Your task to perform on an android device: open wifi settings Image 0: 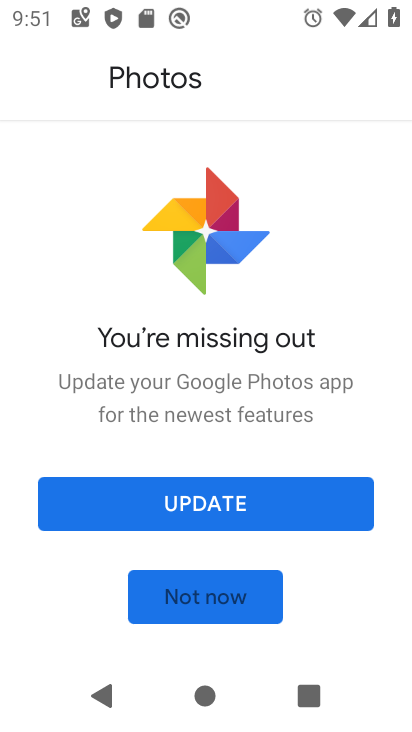
Step 0: press home button
Your task to perform on an android device: open wifi settings Image 1: 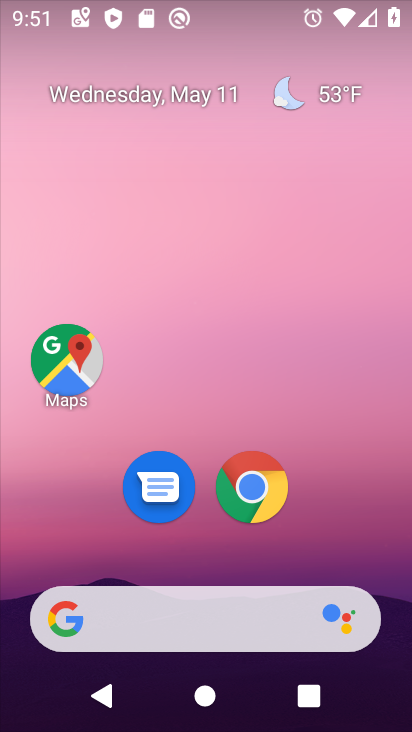
Step 1: drag from (193, 553) to (225, 186)
Your task to perform on an android device: open wifi settings Image 2: 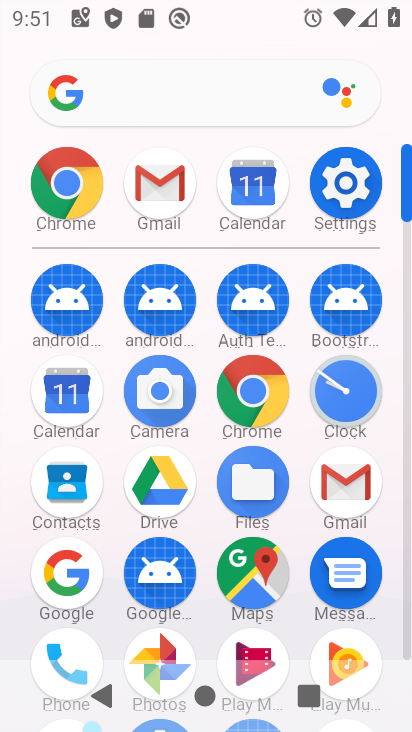
Step 2: click (345, 189)
Your task to perform on an android device: open wifi settings Image 3: 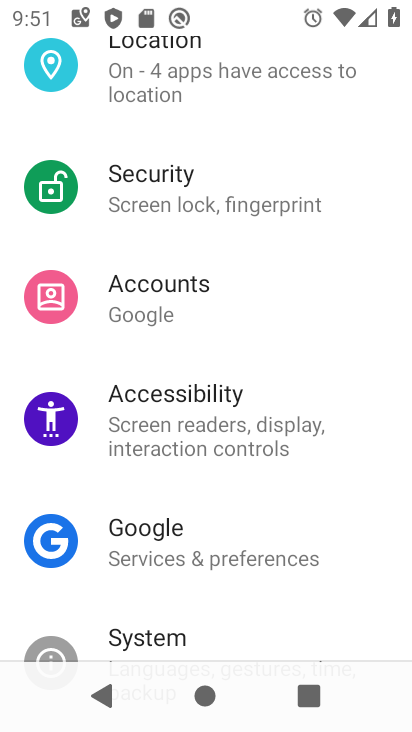
Step 3: drag from (241, 161) to (269, 566)
Your task to perform on an android device: open wifi settings Image 4: 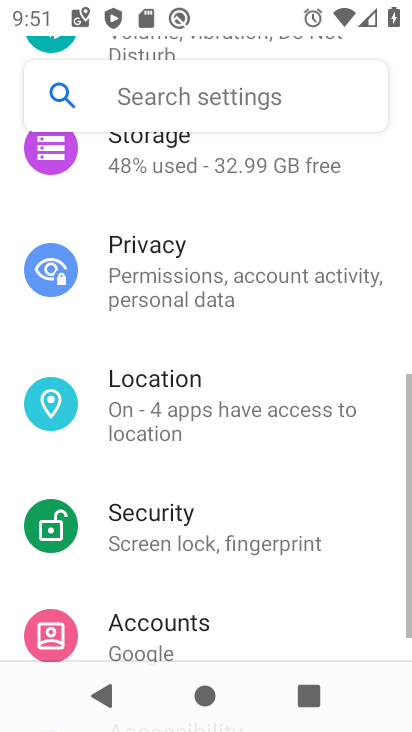
Step 4: drag from (174, 183) to (200, 465)
Your task to perform on an android device: open wifi settings Image 5: 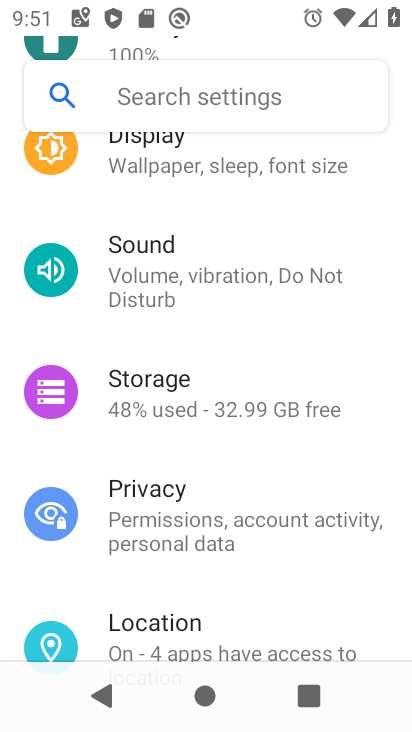
Step 5: drag from (168, 231) to (194, 494)
Your task to perform on an android device: open wifi settings Image 6: 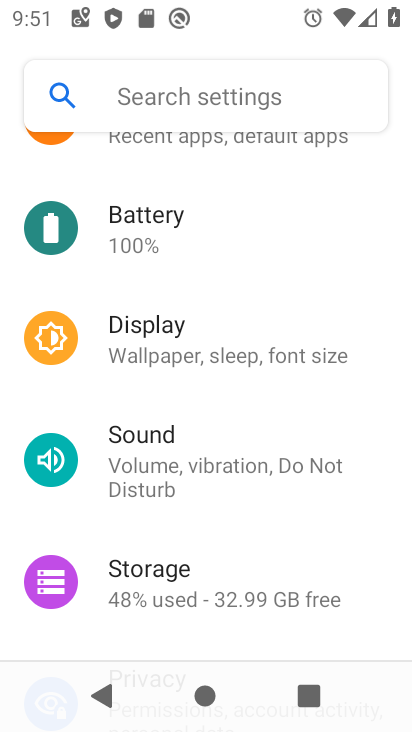
Step 6: drag from (176, 213) to (225, 484)
Your task to perform on an android device: open wifi settings Image 7: 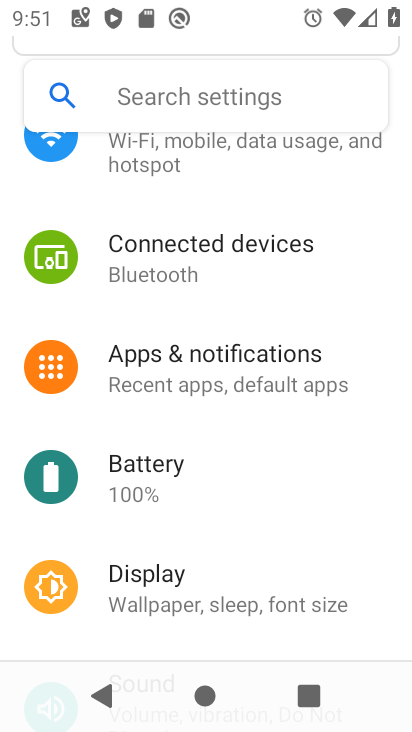
Step 7: drag from (180, 200) to (216, 446)
Your task to perform on an android device: open wifi settings Image 8: 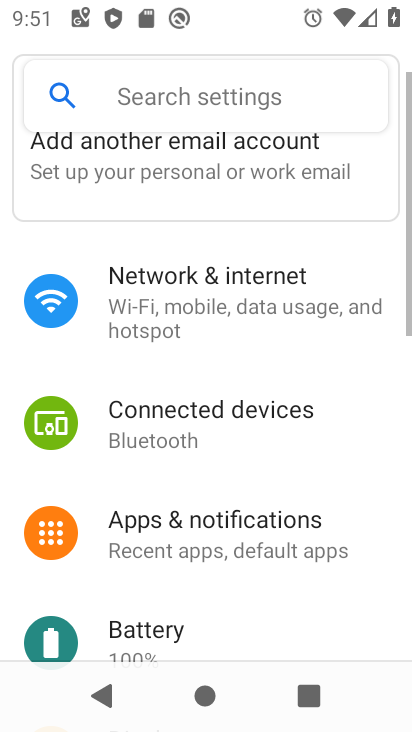
Step 8: click (163, 321)
Your task to perform on an android device: open wifi settings Image 9: 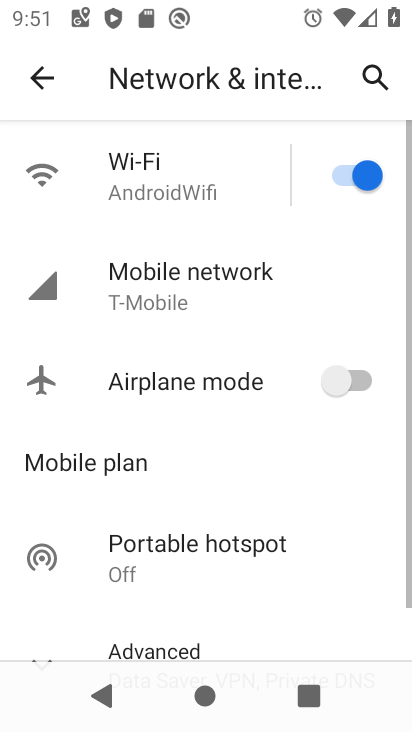
Step 9: click (182, 179)
Your task to perform on an android device: open wifi settings Image 10: 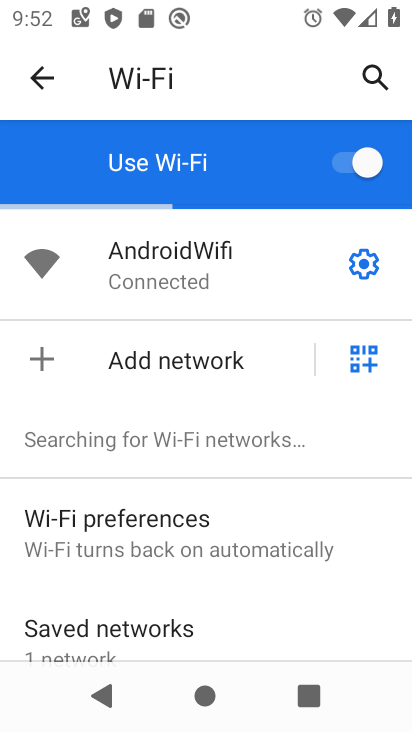
Step 10: task complete